Your task to perform on an android device: change the clock style Image 0: 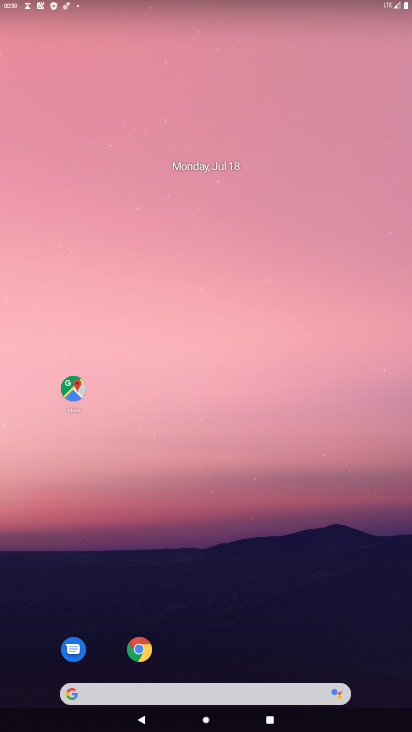
Step 0: drag from (190, 400) to (174, 68)
Your task to perform on an android device: change the clock style Image 1: 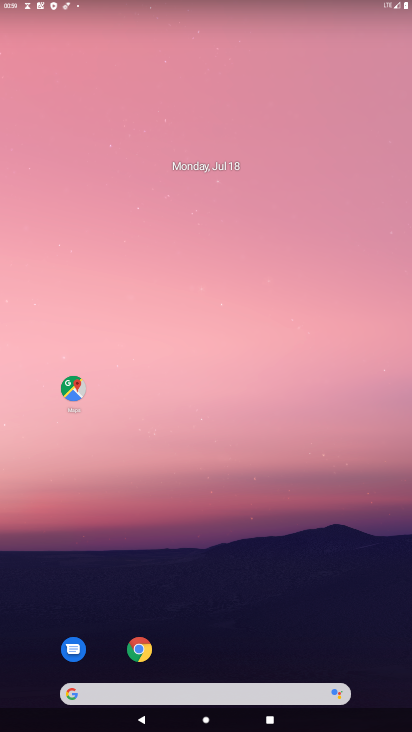
Step 1: drag from (201, 585) to (214, 24)
Your task to perform on an android device: change the clock style Image 2: 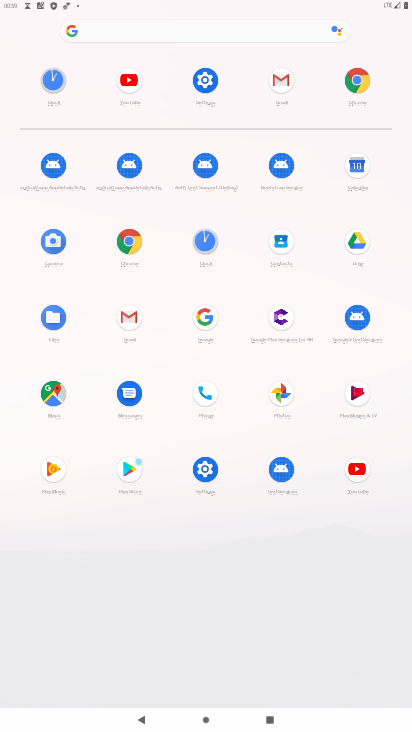
Step 2: click (214, 243)
Your task to perform on an android device: change the clock style Image 3: 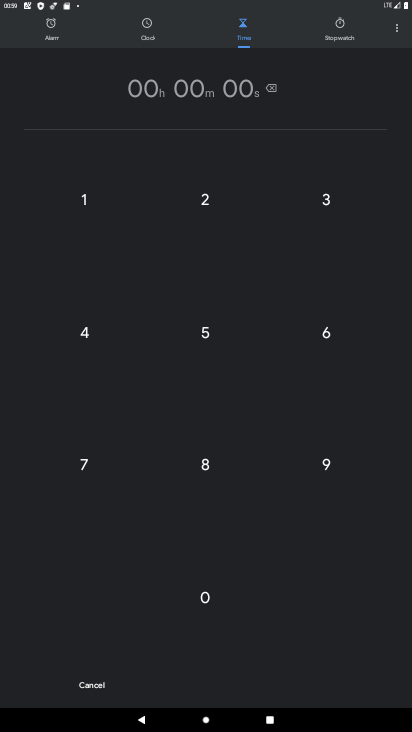
Step 3: click (400, 25)
Your task to perform on an android device: change the clock style Image 4: 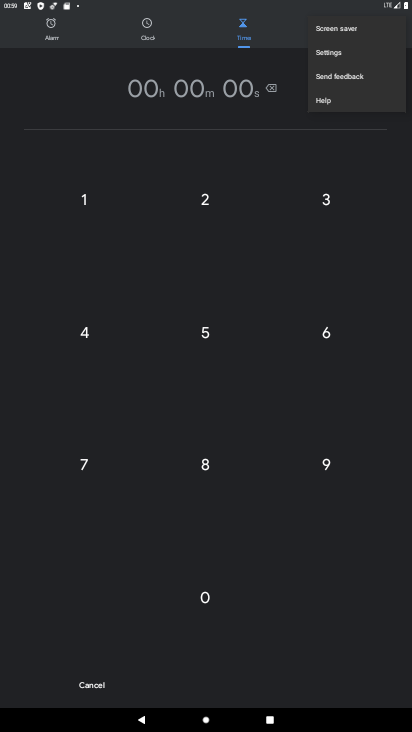
Step 4: click (339, 54)
Your task to perform on an android device: change the clock style Image 5: 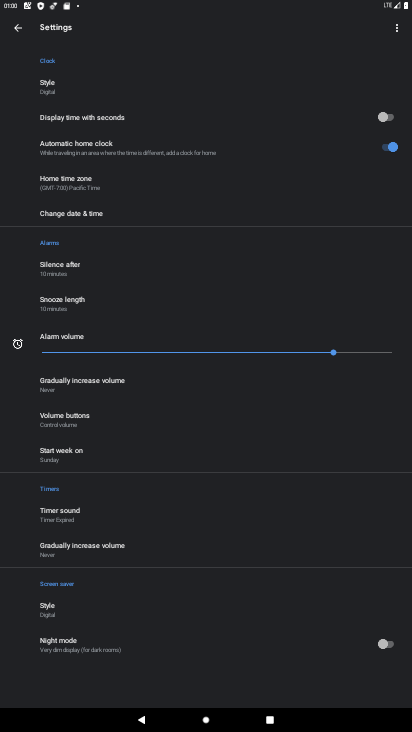
Step 5: click (45, 82)
Your task to perform on an android device: change the clock style Image 6: 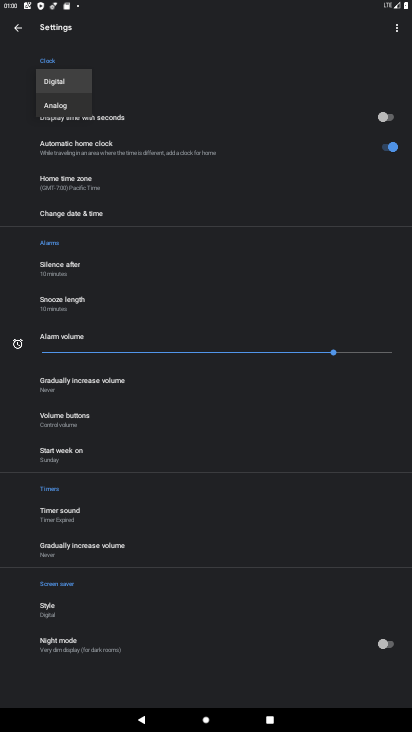
Step 6: click (50, 103)
Your task to perform on an android device: change the clock style Image 7: 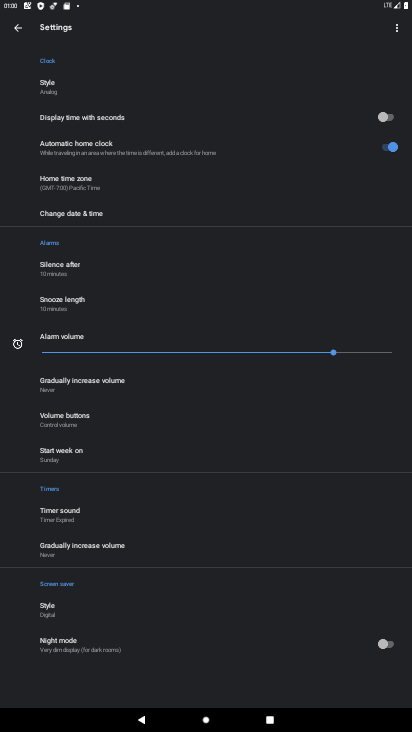
Step 7: task complete